Your task to perform on an android device: Open location settings Image 0: 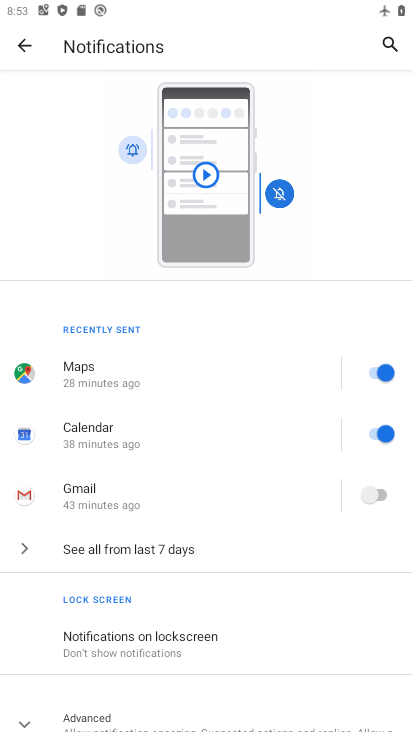
Step 0: press home button
Your task to perform on an android device: Open location settings Image 1: 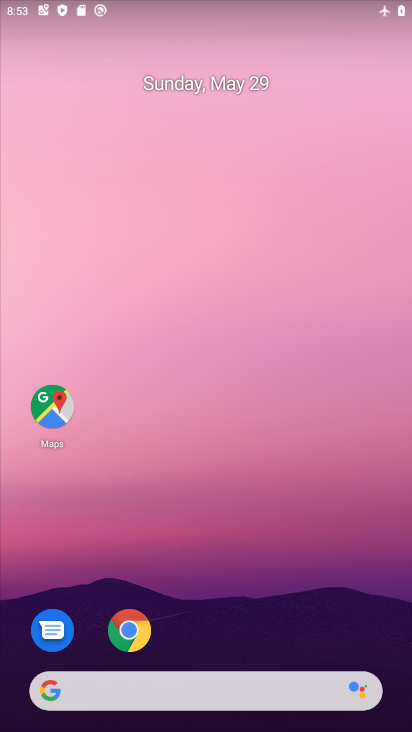
Step 1: drag from (198, 662) to (141, 171)
Your task to perform on an android device: Open location settings Image 2: 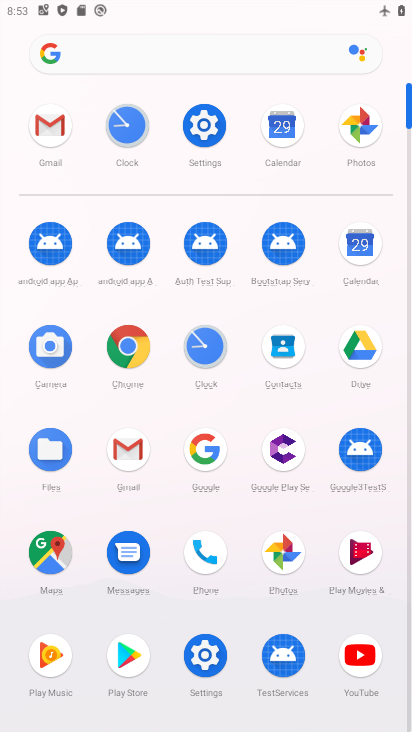
Step 2: click (196, 644)
Your task to perform on an android device: Open location settings Image 3: 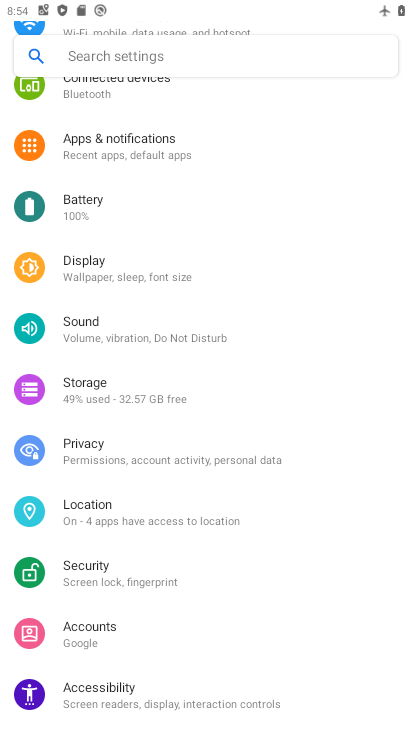
Step 3: click (97, 492)
Your task to perform on an android device: Open location settings Image 4: 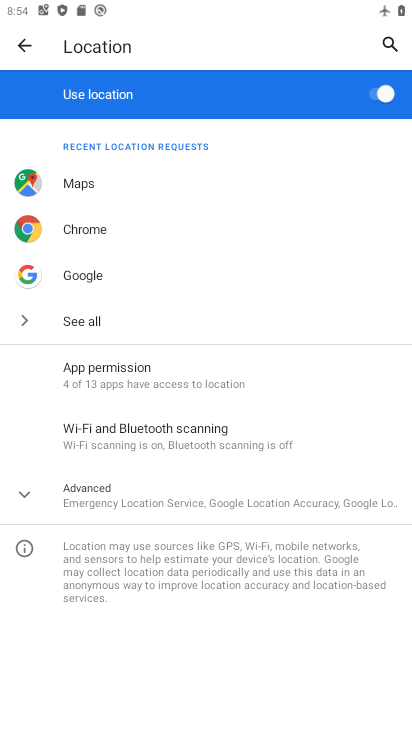
Step 4: click (124, 485)
Your task to perform on an android device: Open location settings Image 5: 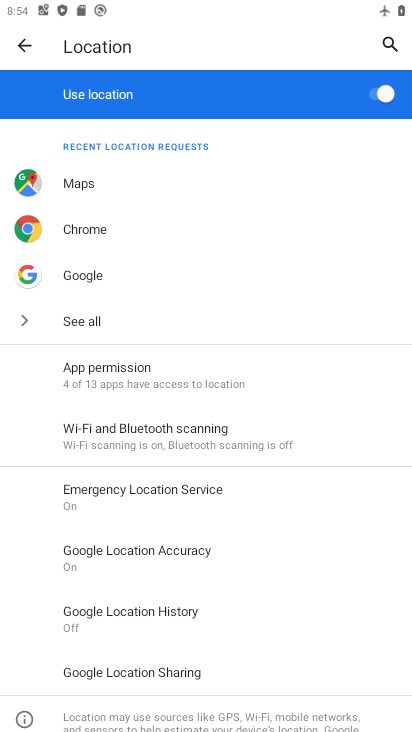
Step 5: task complete